Your task to perform on an android device: show emergency info Image 0: 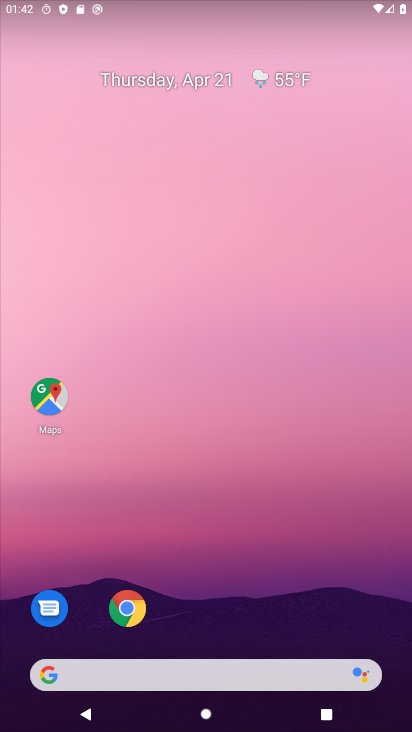
Step 0: drag from (177, 505) to (149, 180)
Your task to perform on an android device: show emergency info Image 1: 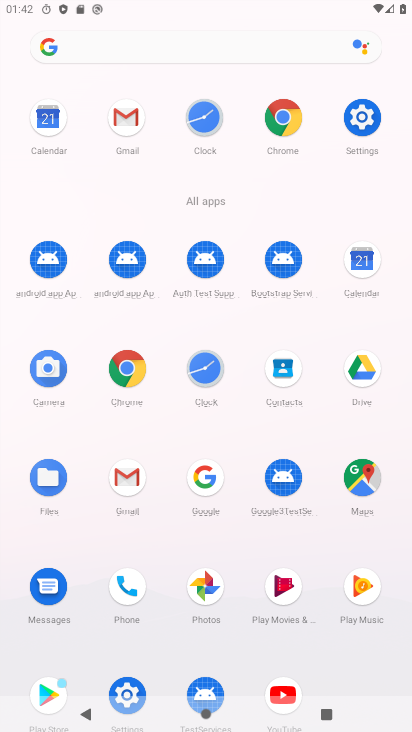
Step 1: click (366, 112)
Your task to perform on an android device: show emergency info Image 2: 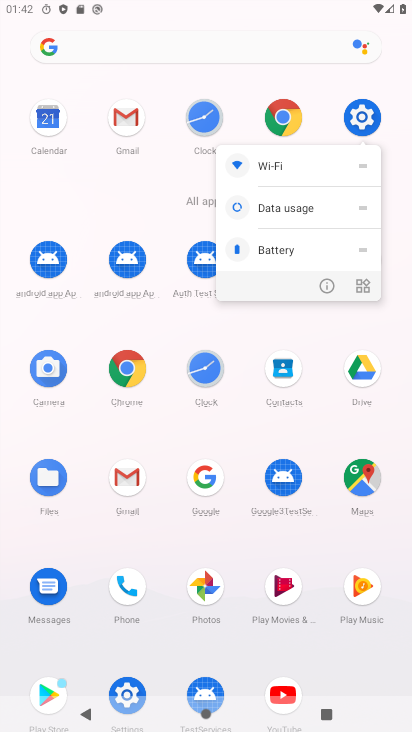
Step 2: click (365, 113)
Your task to perform on an android device: show emergency info Image 3: 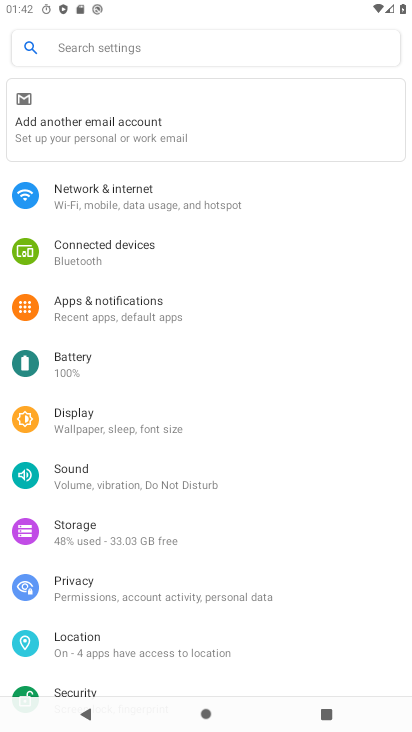
Step 3: drag from (139, 673) to (150, 172)
Your task to perform on an android device: show emergency info Image 4: 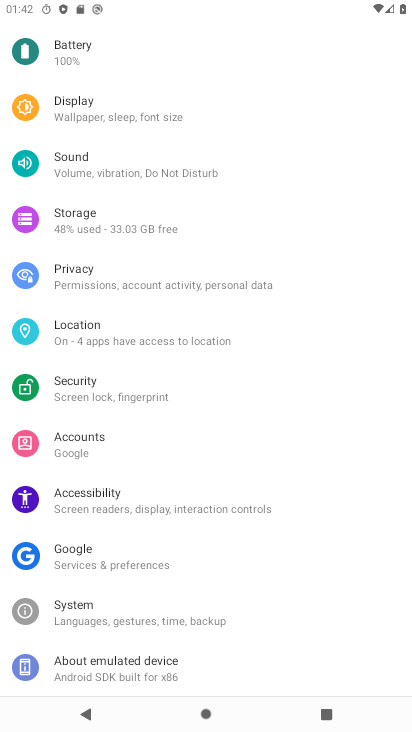
Step 4: click (115, 669)
Your task to perform on an android device: show emergency info Image 5: 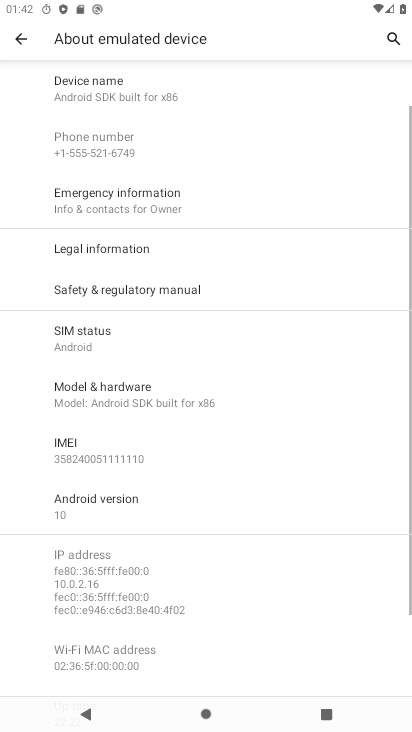
Step 5: click (112, 199)
Your task to perform on an android device: show emergency info Image 6: 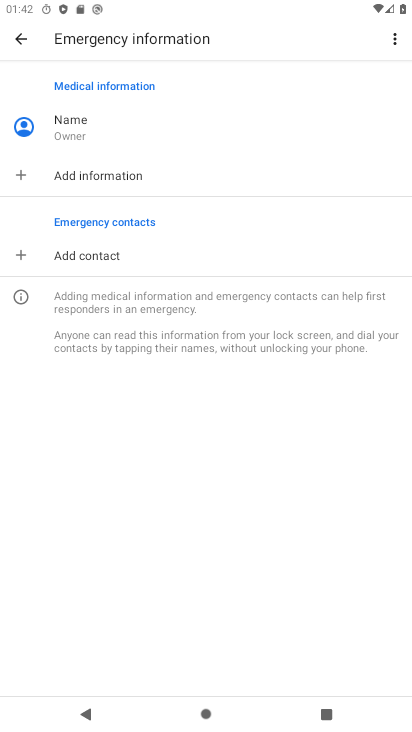
Step 6: task complete